Your task to perform on an android device: change the clock style Image 0: 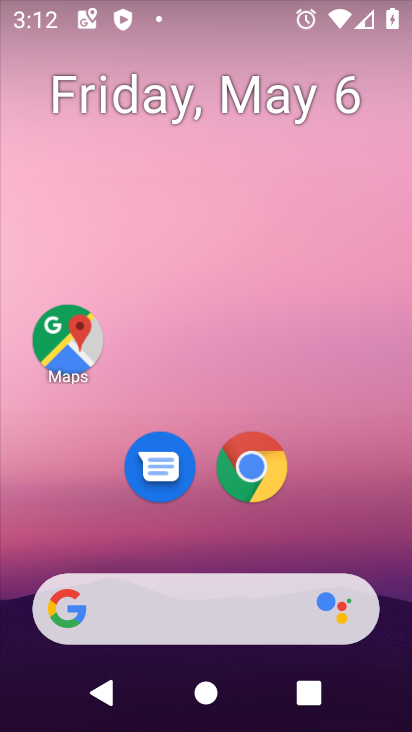
Step 0: drag from (243, 544) to (331, 57)
Your task to perform on an android device: change the clock style Image 1: 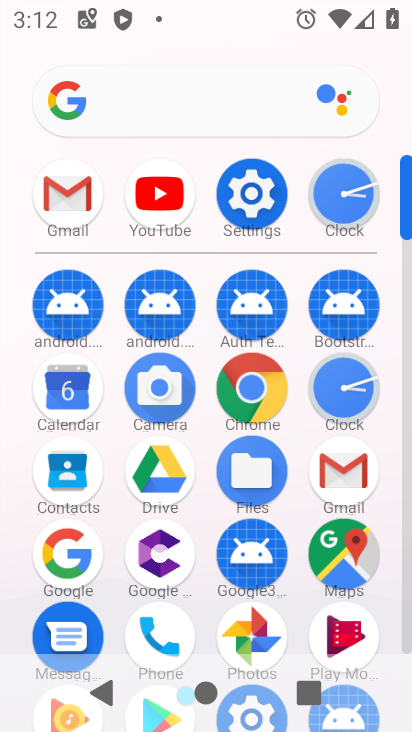
Step 1: click (340, 384)
Your task to perform on an android device: change the clock style Image 2: 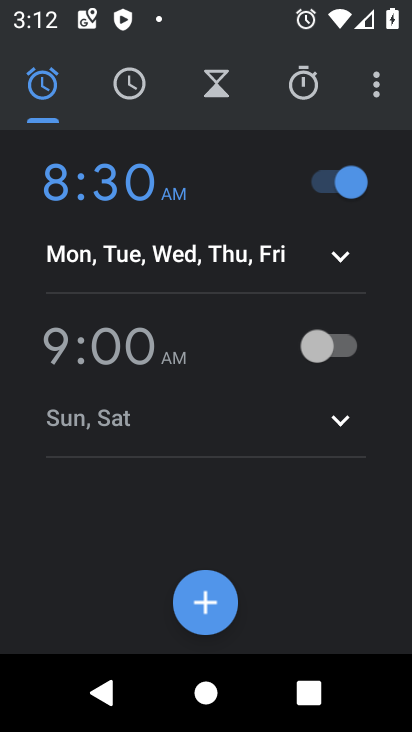
Step 2: drag from (379, 51) to (348, 310)
Your task to perform on an android device: change the clock style Image 3: 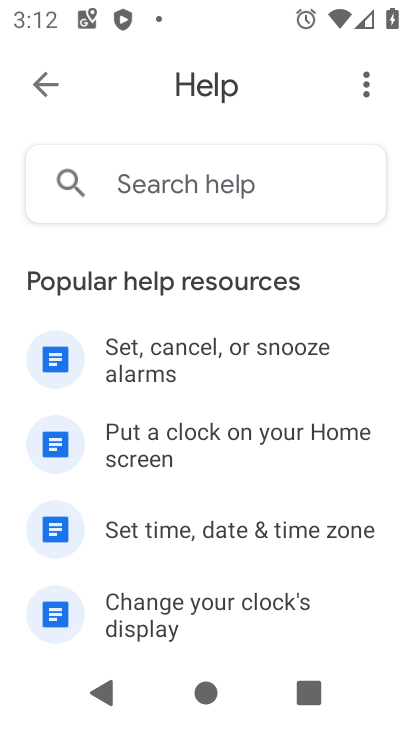
Step 3: press back button
Your task to perform on an android device: change the clock style Image 4: 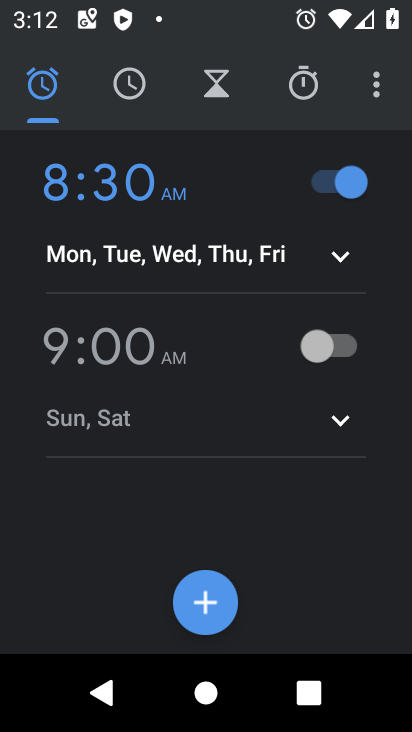
Step 4: click (380, 74)
Your task to perform on an android device: change the clock style Image 5: 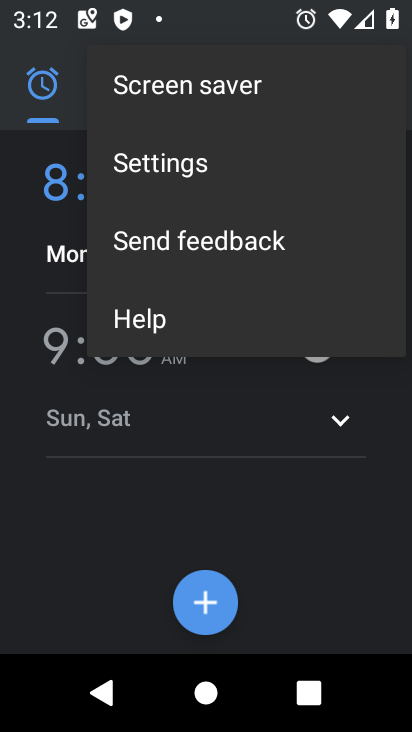
Step 5: click (165, 173)
Your task to perform on an android device: change the clock style Image 6: 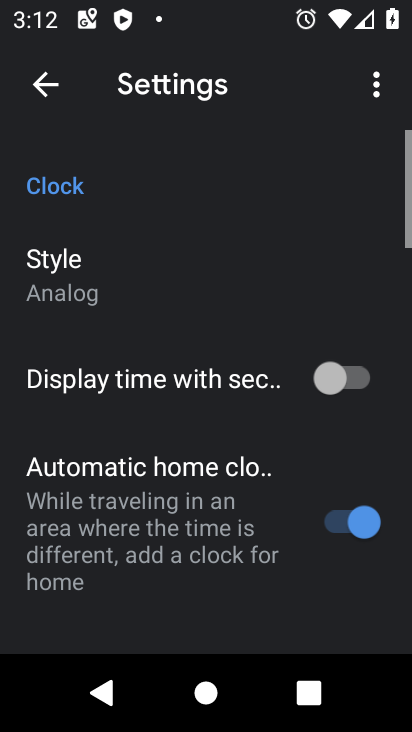
Step 6: click (97, 275)
Your task to perform on an android device: change the clock style Image 7: 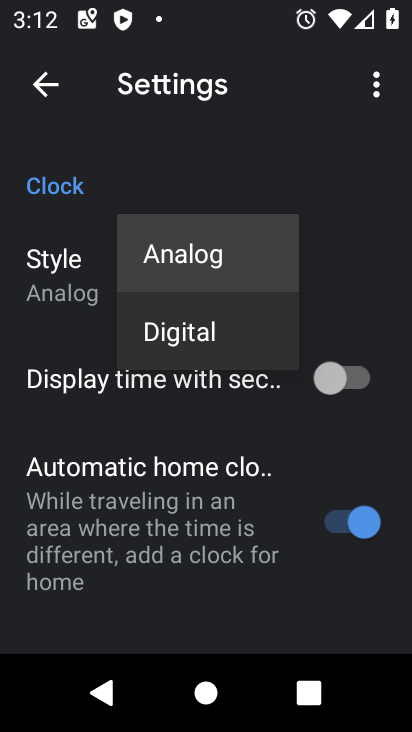
Step 7: click (206, 334)
Your task to perform on an android device: change the clock style Image 8: 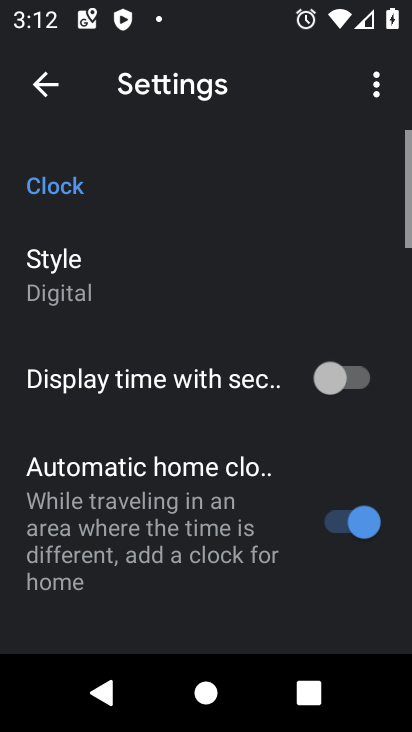
Step 8: task complete